Your task to perform on an android device: Turn on the flashlight Image 0: 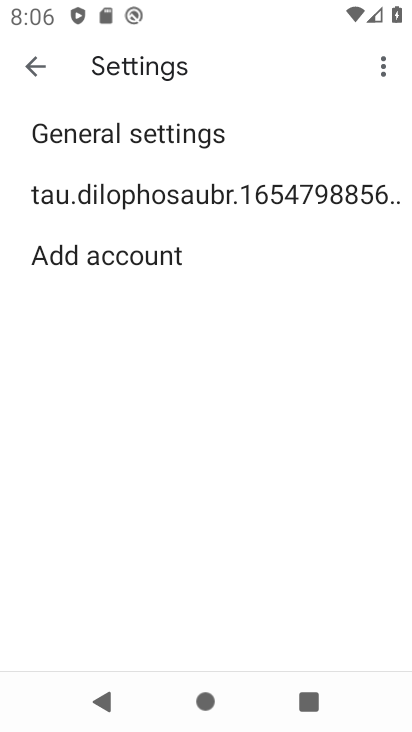
Step 0: press home button
Your task to perform on an android device: Turn on the flashlight Image 1: 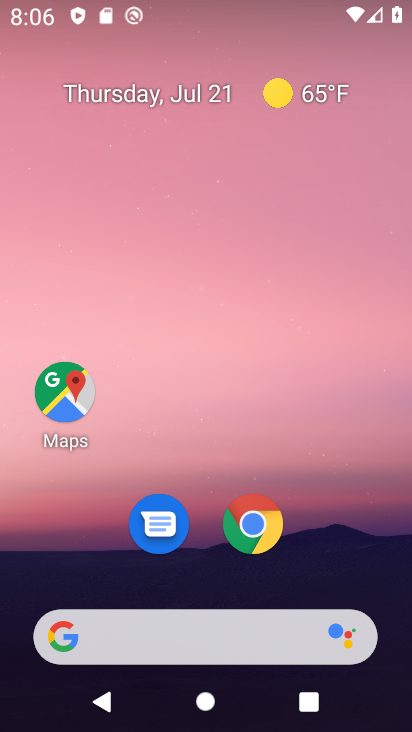
Step 1: task complete